Your task to perform on an android device: turn pop-ups off in chrome Image 0: 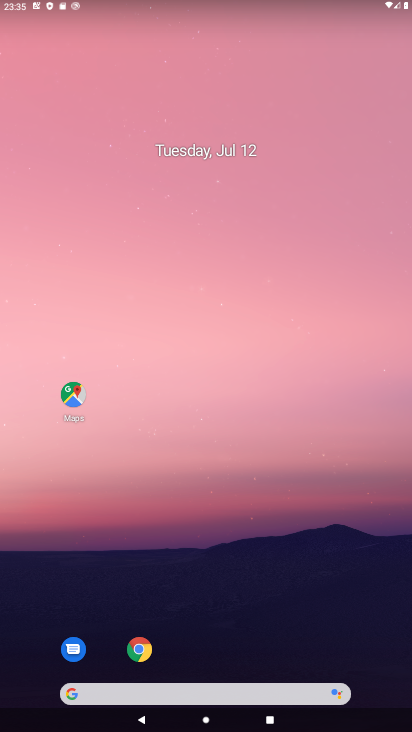
Step 0: click (139, 652)
Your task to perform on an android device: turn pop-ups off in chrome Image 1: 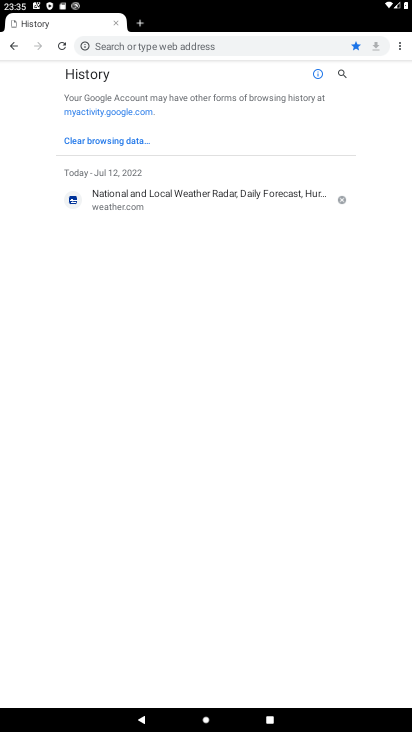
Step 1: click (401, 49)
Your task to perform on an android device: turn pop-ups off in chrome Image 2: 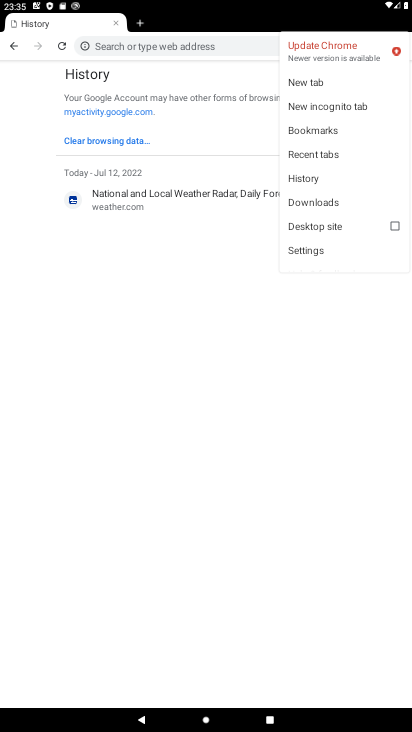
Step 2: click (303, 245)
Your task to perform on an android device: turn pop-ups off in chrome Image 3: 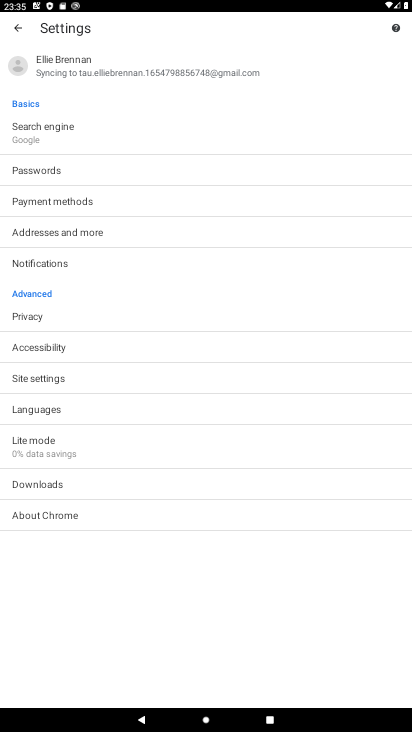
Step 3: click (60, 376)
Your task to perform on an android device: turn pop-ups off in chrome Image 4: 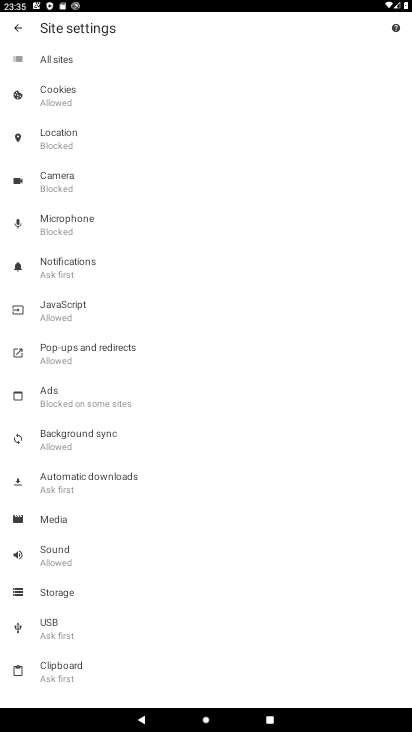
Step 4: click (56, 353)
Your task to perform on an android device: turn pop-ups off in chrome Image 5: 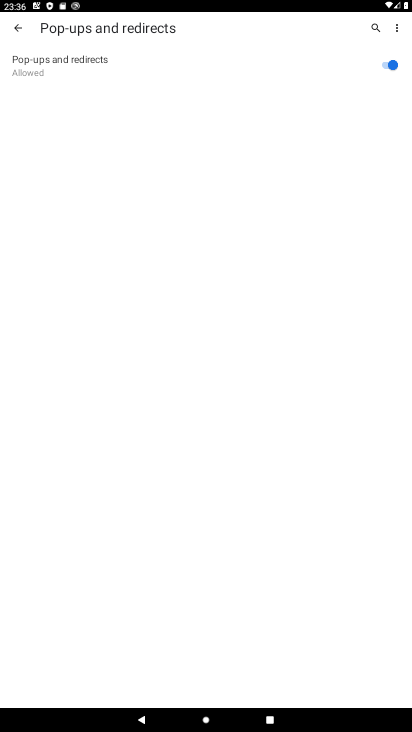
Step 5: click (386, 64)
Your task to perform on an android device: turn pop-ups off in chrome Image 6: 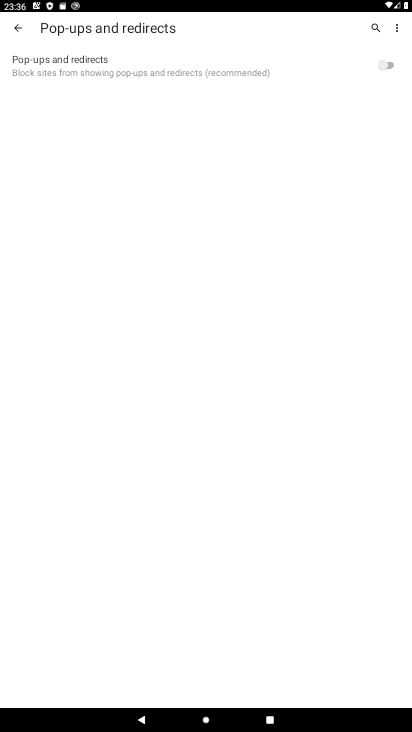
Step 6: task complete